Your task to perform on an android device: Go to settings Image 0: 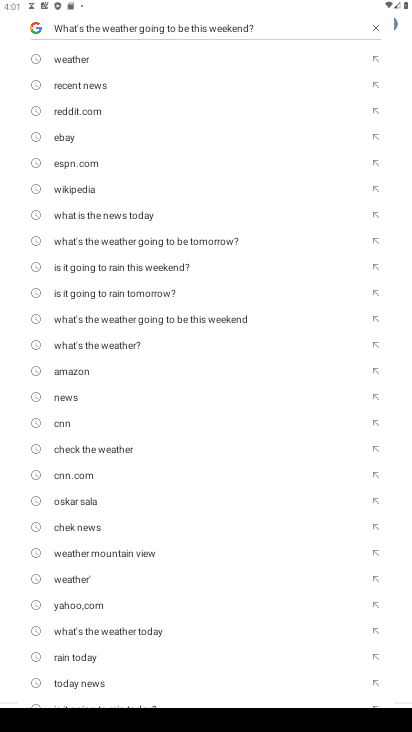
Step 0: press home button
Your task to perform on an android device: Go to settings Image 1: 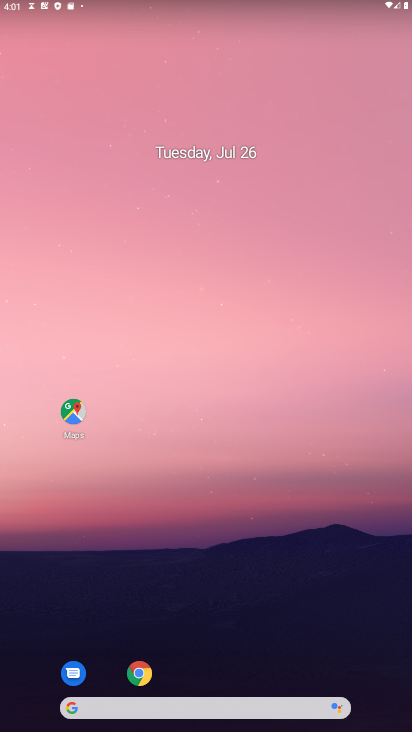
Step 1: drag from (163, 703) to (235, 33)
Your task to perform on an android device: Go to settings Image 2: 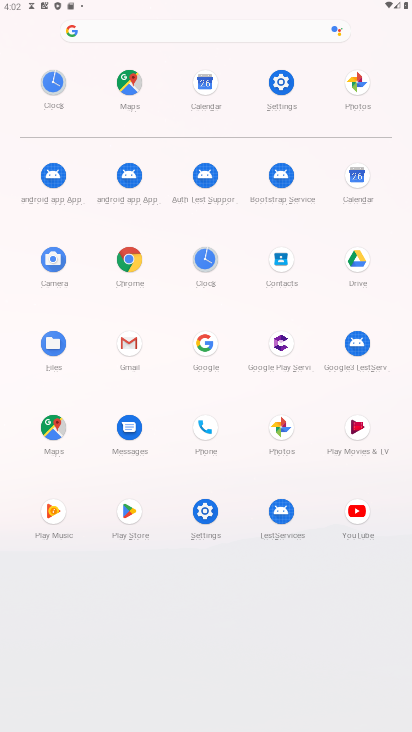
Step 2: click (281, 83)
Your task to perform on an android device: Go to settings Image 3: 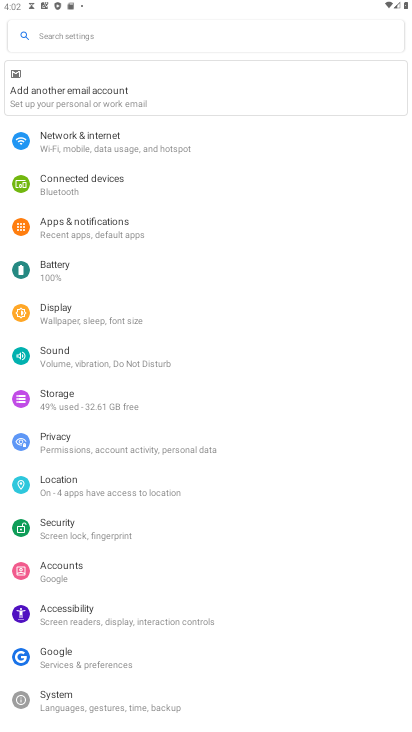
Step 3: task complete